Your task to perform on an android device: When is my next appointment? Image 0: 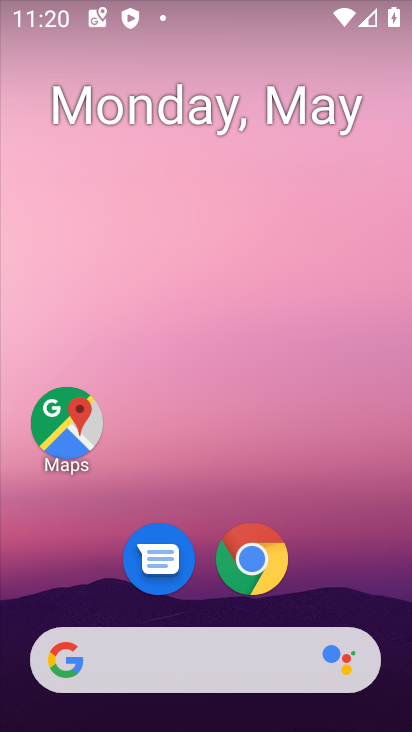
Step 0: drag from (365, 521) to (335, 101)
Your task to perform on an android device: When is my next appointment? Image 1: 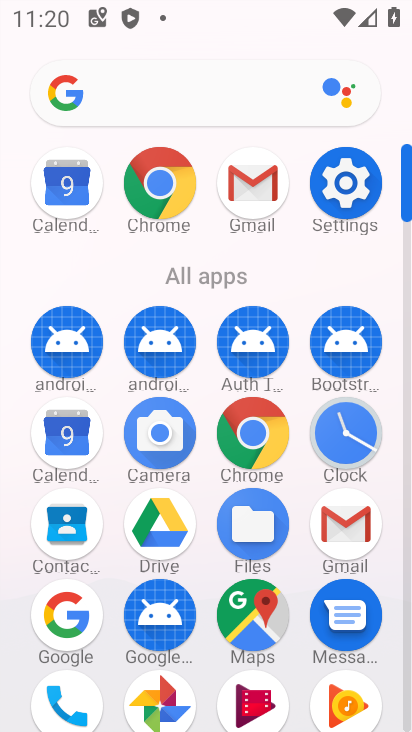
Step 1: click (67, 413)
Your task to perform on an android device: When is my next appointment? Image 2: 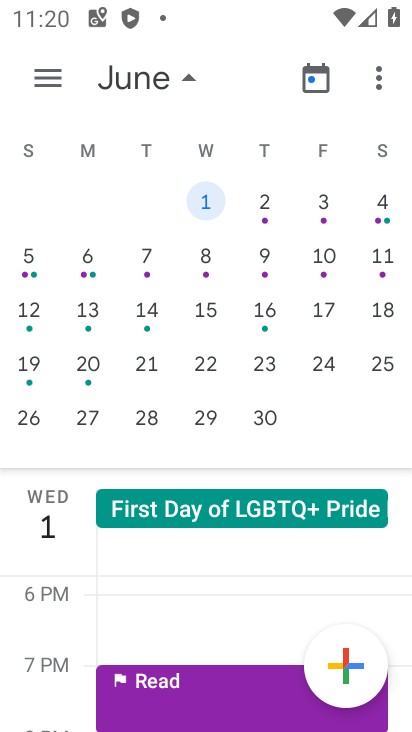
Step 2: drag from (29, 226) to (409, 255)
Your task to perform on an android device: When is my next appointment? Image 3: 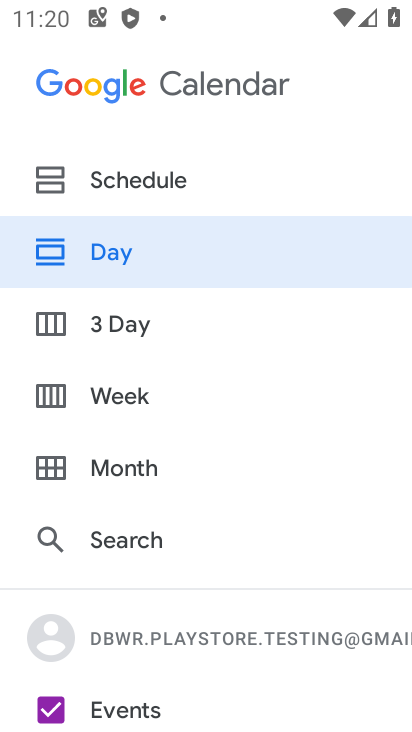
Step 3: drag from (408, 304) to (16, 372)
Your task to perform on an android device: When is my next appointment? Image 4: 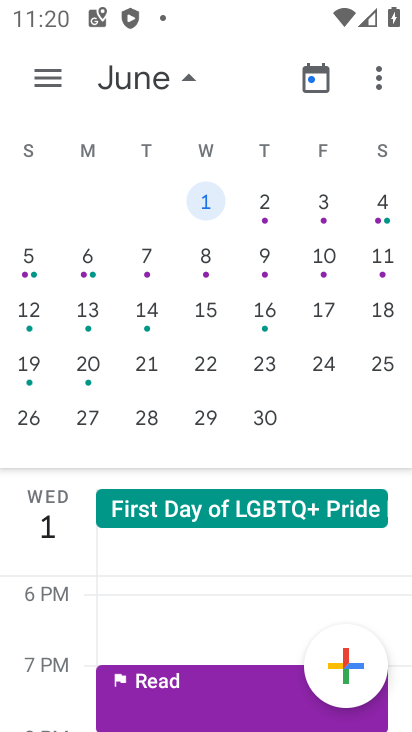
Step 4: drag from (187, 302) to (411, 300)
Your task to perform on an android device: When is my next appointment? Image 5: 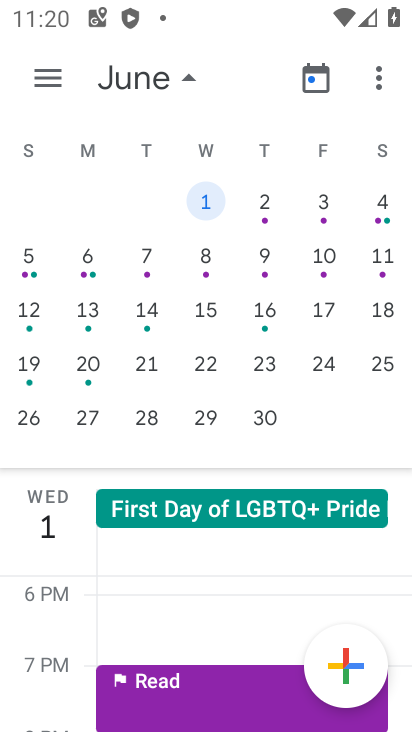
Step 5: drag from (121, 273) to (409, 307)
Your task to perform on an android device: When is my next appointment? Image 6: 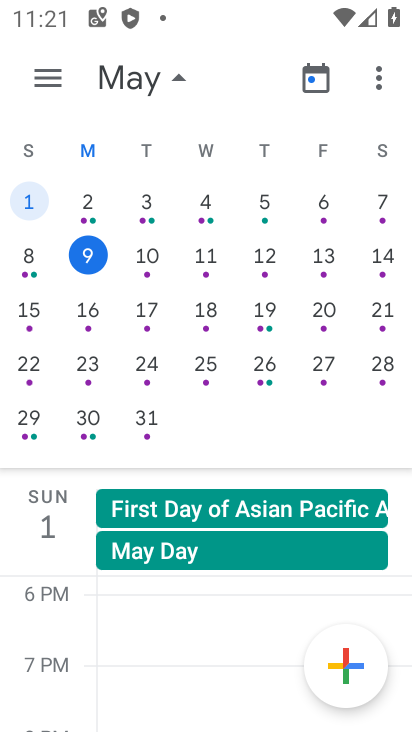
Step 6: click (146, 249)
Your task to perform on an android device: When is my next appointment? Image 7: 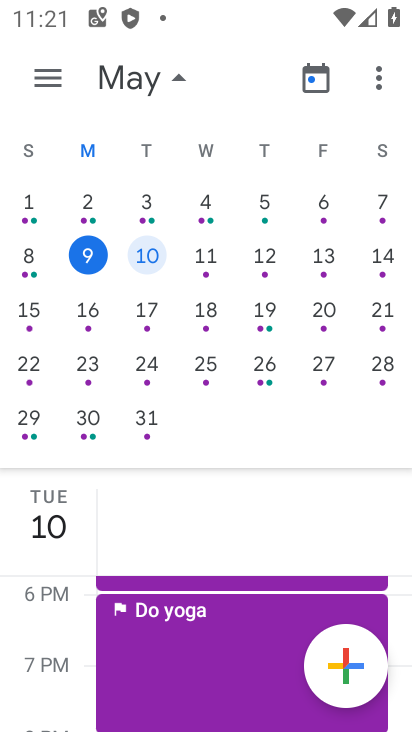
Step 7: click (61, 75)
Your task to perform on an android device: When is my next appointment? Image 8: 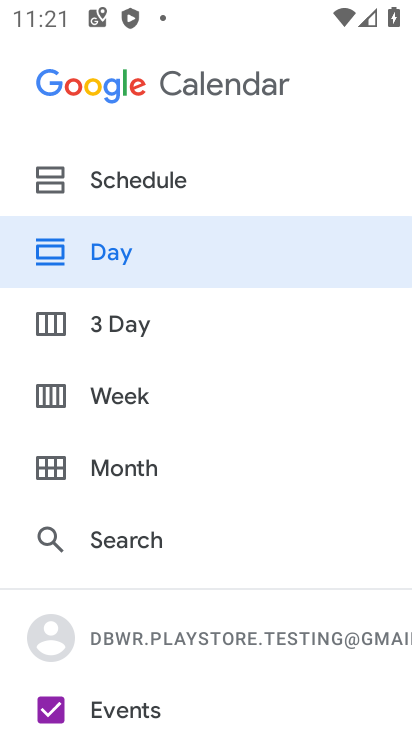
Step 8: click (104, 175)
Your task to perform on an android device: When is my next appointment? Image 9: 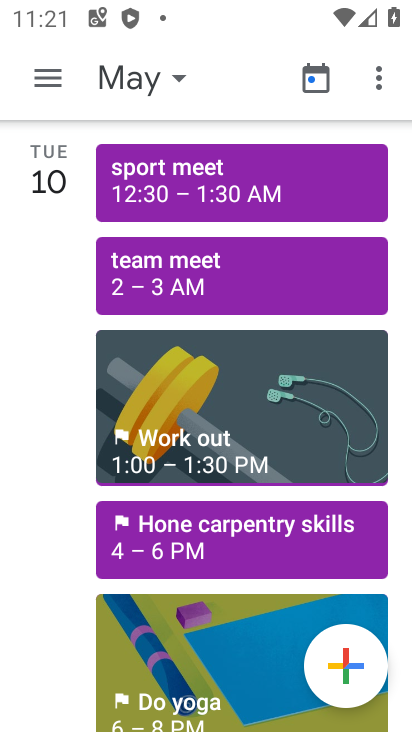
Step 9: task complete